Your task to perform on an android device: change your default location settings in chrome Image 0: 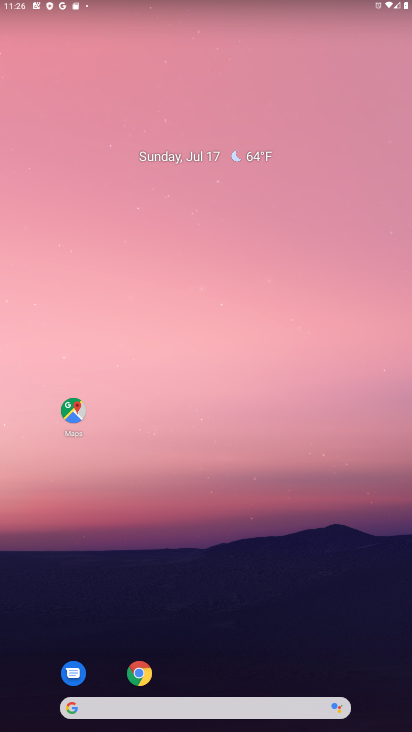
Step 0: click (141, 672)
Your task to perform on an android device: change your default location settings in chrome Image 1: 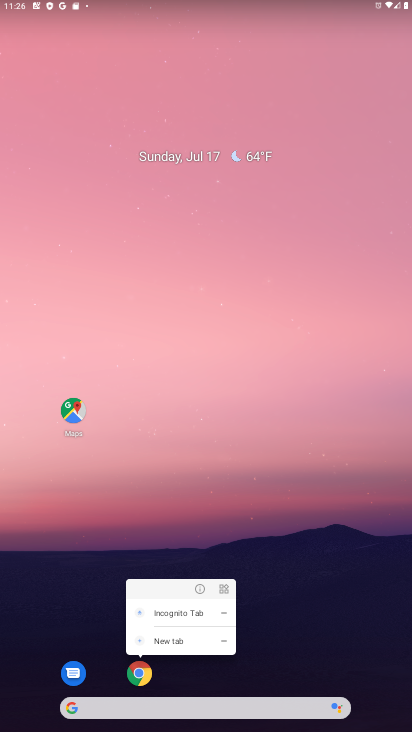
Step 1: click (141, 672)
Your task to perform on an android device: change your default location settings in chrome Image 2: 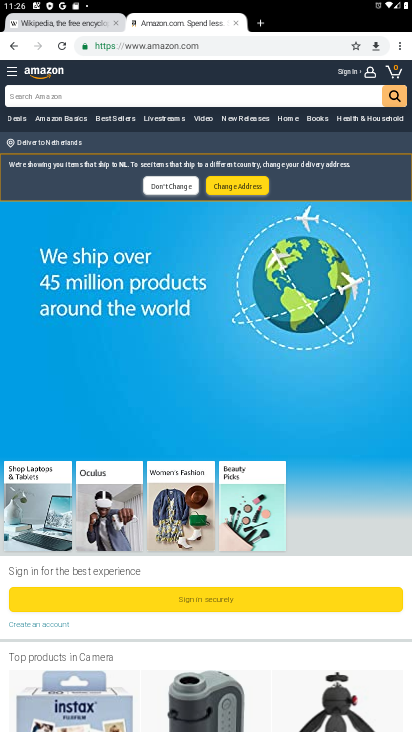
Step 2: click (397, 44)
Your task to perform on an android device: change your default location settings in chrome Image 3: 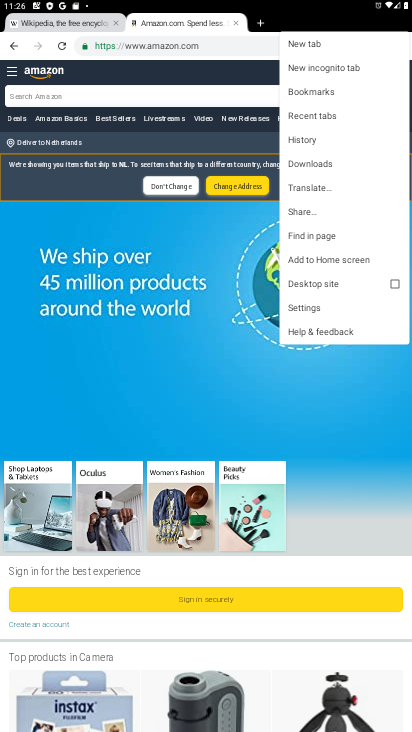
Step 3: click (324, 313)
Your task to perform on an android device: change your default location settings in chrome Image 4: 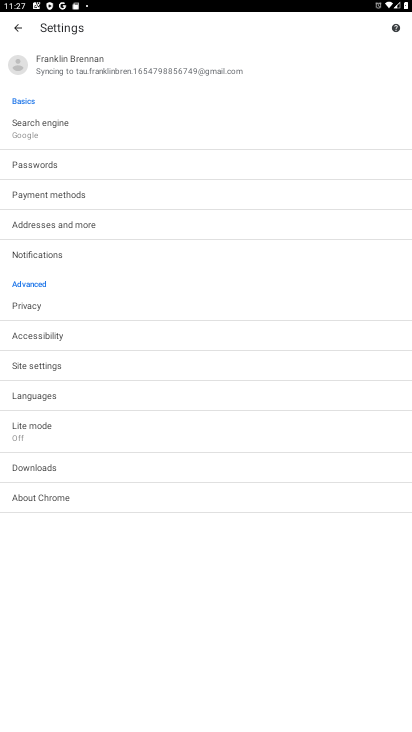
Step 4: click (46, 365)
Your task to perform on an android device: change your default location settings in chrome Image 5: 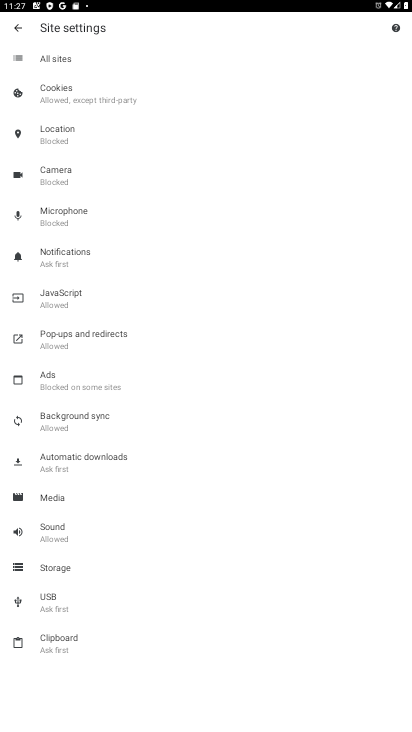
Step 5: click (75, 143)
Your task to perform on an android device: change your default location settings in chrome Image 6: 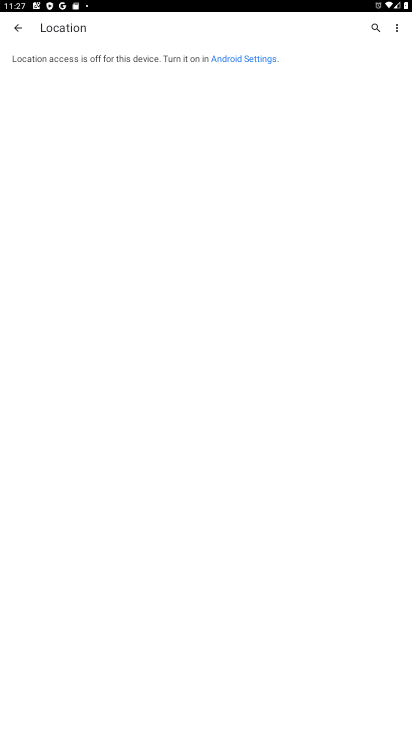
Step 6: task complete